Your task to perform on an android device: Open battery settings Image 0: 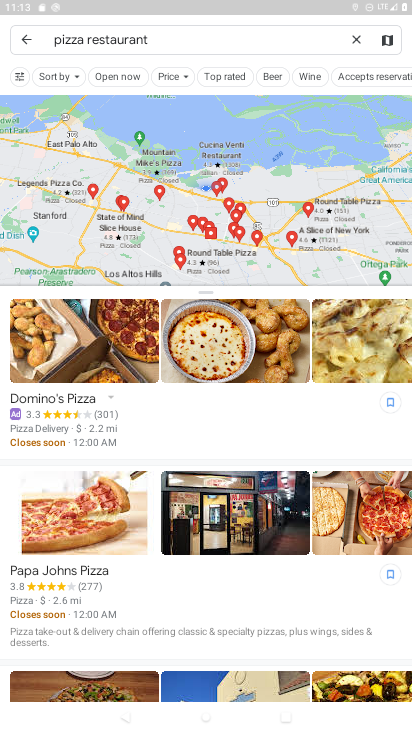
Step 0: press home button
Your task to perform on an android device: Open battery settings Image 1: 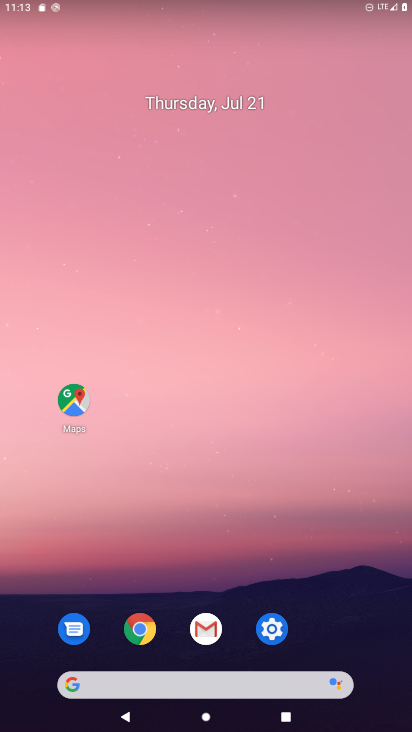
Step 1: click (270, 634)
Your task to perform on an android device: Open battery settings Image 2: 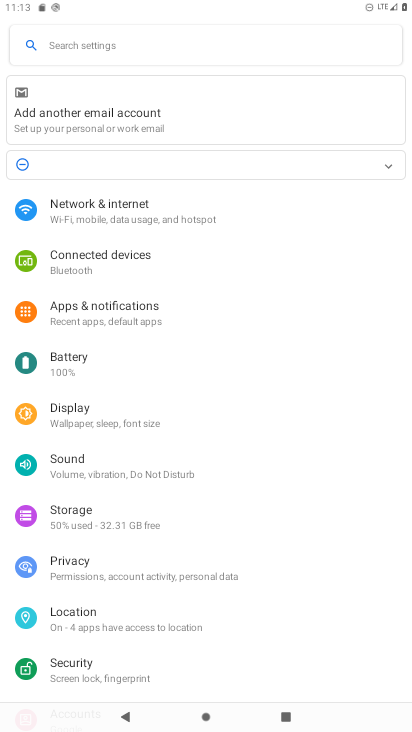
Step 2: click (82, 360)
Your task to perform on an android device: Open battery settings Image 3: 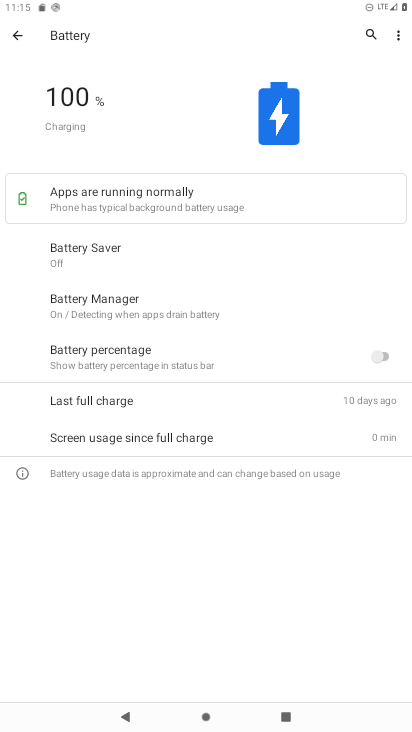
Step 3: task complete